Your task to perform on an android device: set the stopwatch Image 0: 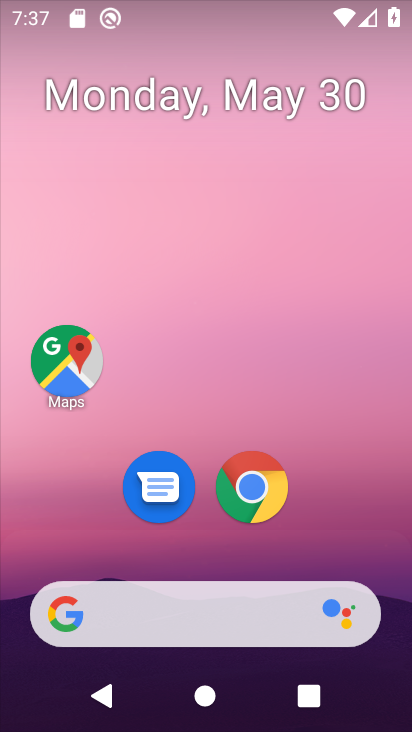
Step 0: drag from (342, 517) to (324, 9)
Your task to perform on an android device: set the stopwatch Image 1: 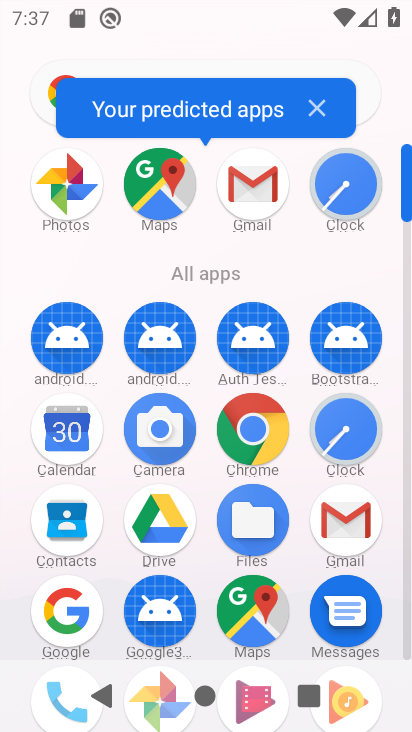
Step 1: click (354, 422)
Your task to perform on an android device: set the stopwatch Image 2: 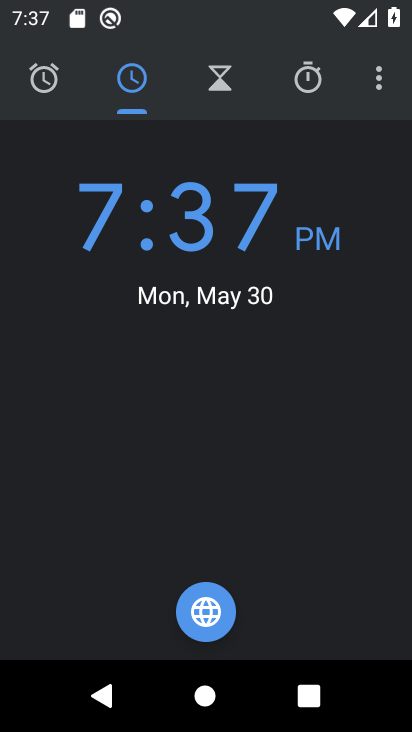
Step 2: click (310, 72)
Your task to perform on an android device: set the stopwatch Image 3: 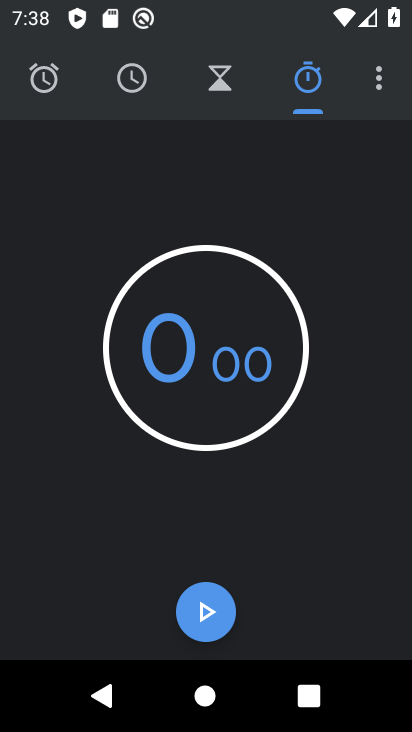
Step 3: task complete